Your task to perform on an android device: Go to accessibility settings Image 0: 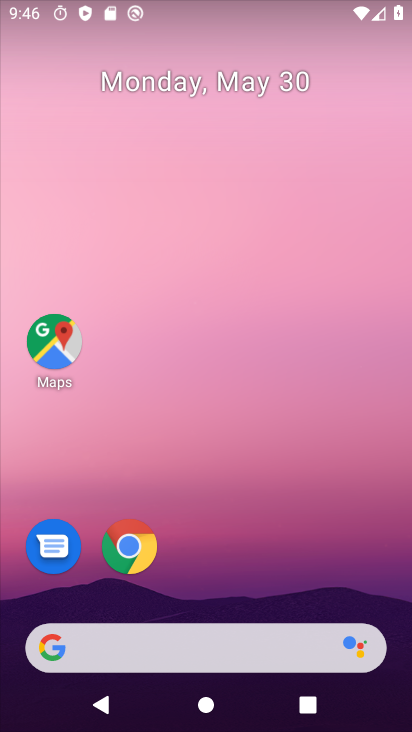
Step 0: drag from (202, 473) to (374, 26)
Your task to perform on an android device: Go to accessibility settings Image 1: 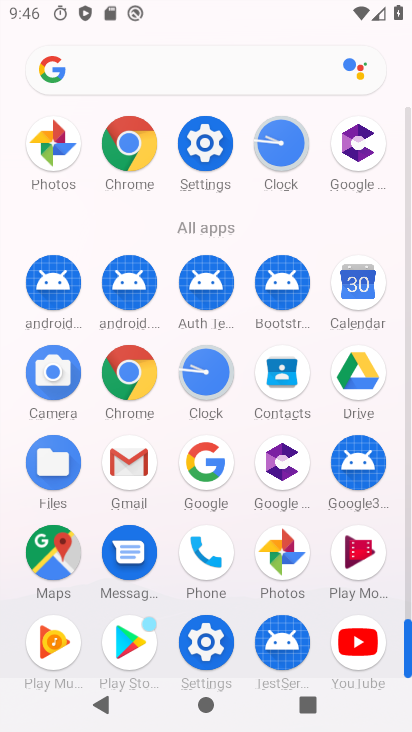
Step 1: drag from (253, 662) to (342, 400)
Your task to perform on an android device: Go to accessibility settings Image 2: 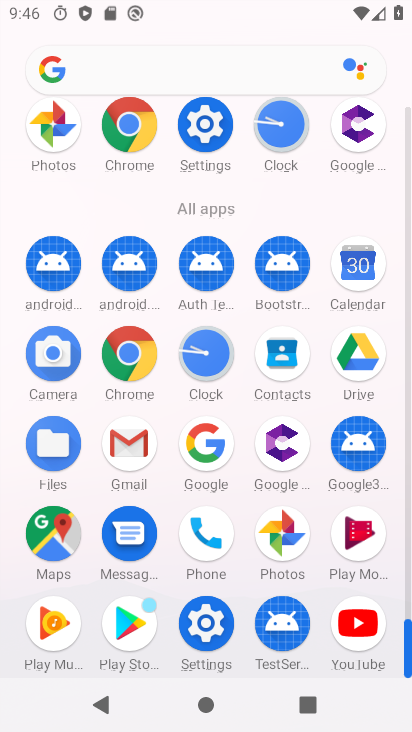
Step 2: click (215, 623)
Your task to perform on an android device: Go to accessibility settings Image 3: 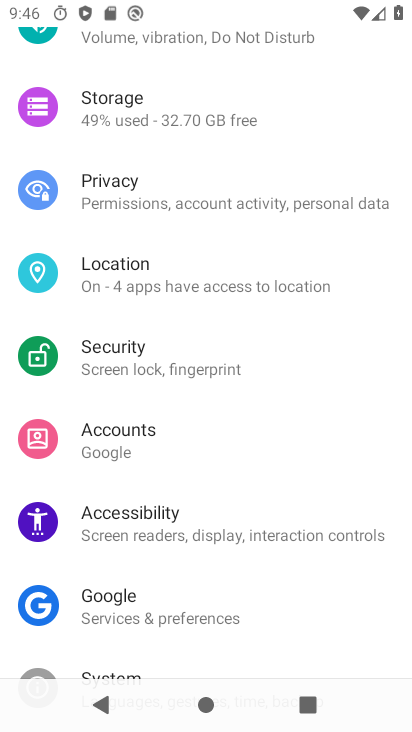
Step 3: drag from (129, 617) to (226, 367)
Your task to perform on an android device: Go to accessibility settings Image 4: 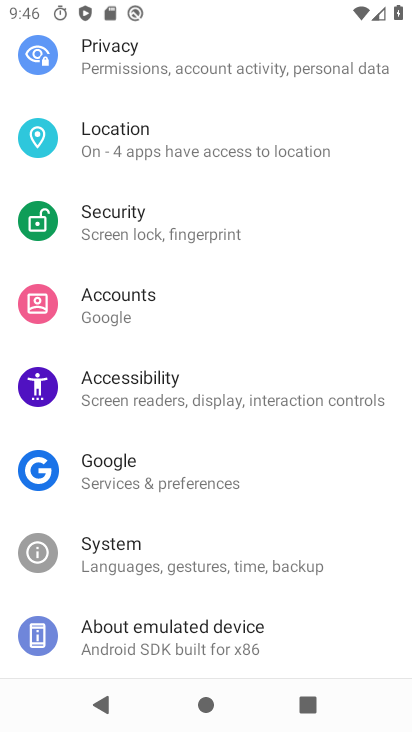
Step 4: click (162, 386)
Your task to perform on an android device: Go to accessibility settings Image 5: 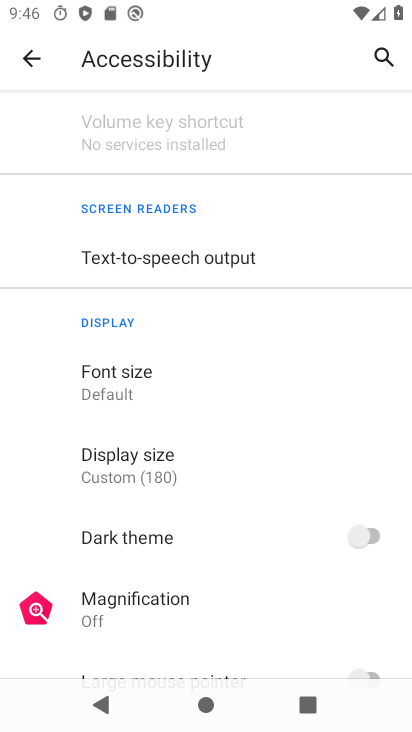
Step 5: task complete